Your task to perform on an android device: Open notification settings Image 0: 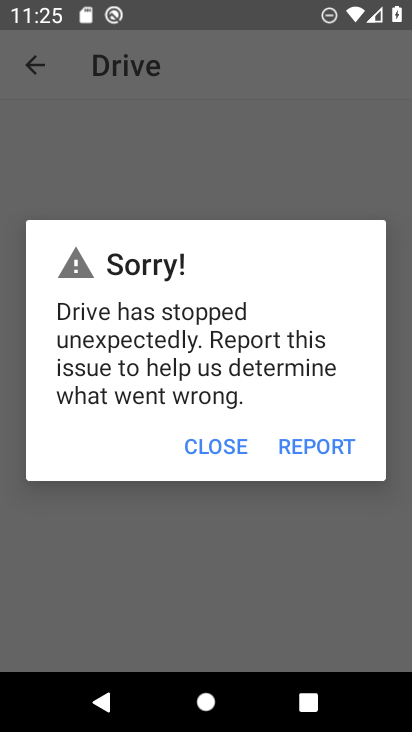
Step 0: press home button
Your task to perform on an android device: Open notification settings Image 1: 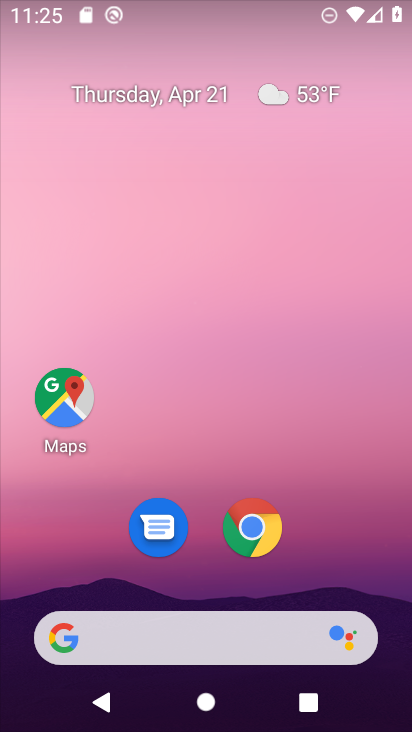
Step 1: drag from (358, 535) to (360, 216)
Your task to perform on an android device: Open notification settings Image 2: 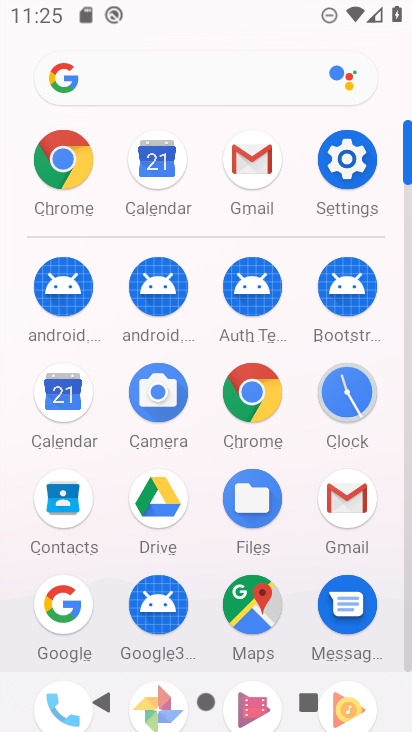
Step 2: click (340, 161)
Your task to perform on an android device: Open notification settings Image 3: 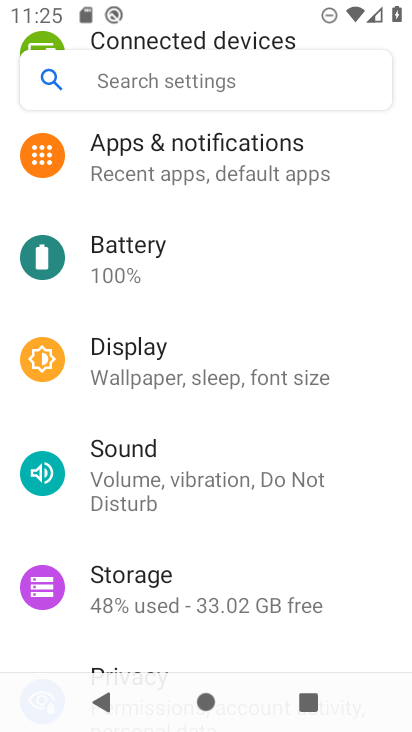
Step 3: drag from (357, 277) to (360, 411)
Your task to perform on an android device: Open notification settings Image 4: 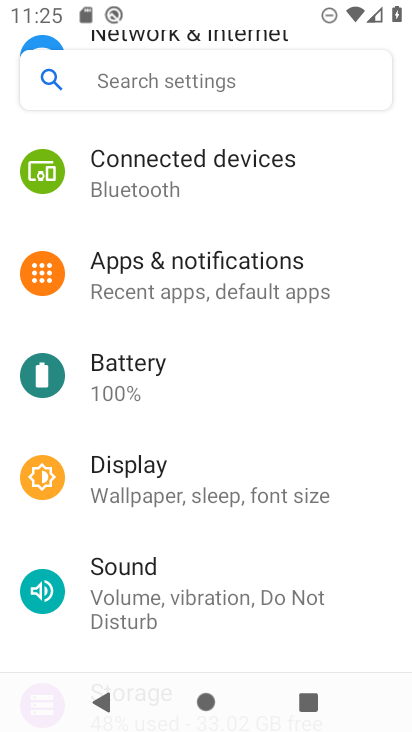
Step 4: drag from (363, 245) to (351, 406)
Your task to perform on an android device: Open notification settings Image 5: 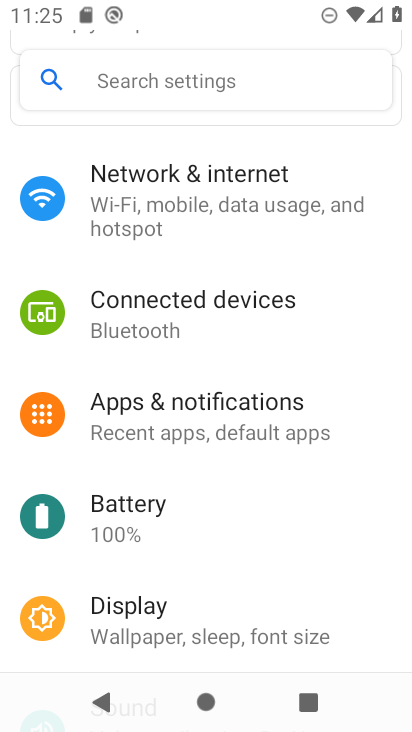
Step 5: drag from (363, 257) to (357, 419)
Your task to perform on an android device: Open notification settings Image 6: 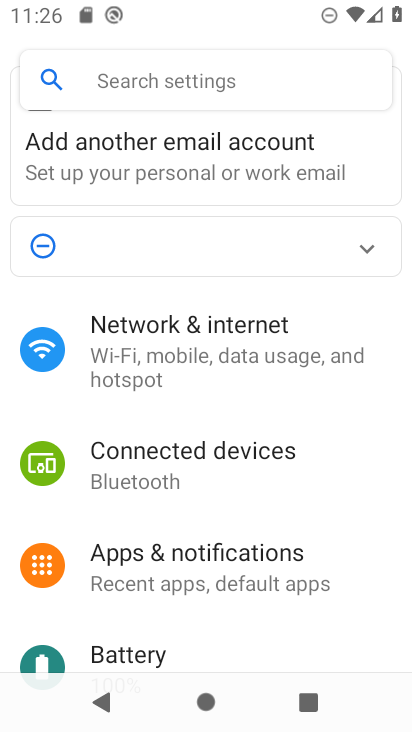
Step 6: drag from (363, 533) to (360, 359)
Your task to perform on an android device: Open notification settings Image 7: 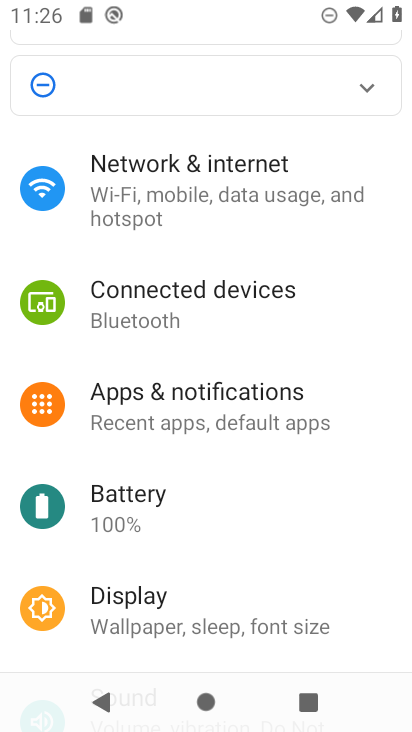
Step 7: drag from (351, 528) to (351, 391)
Your task to perform on an android device: Open notification settings Image 8: 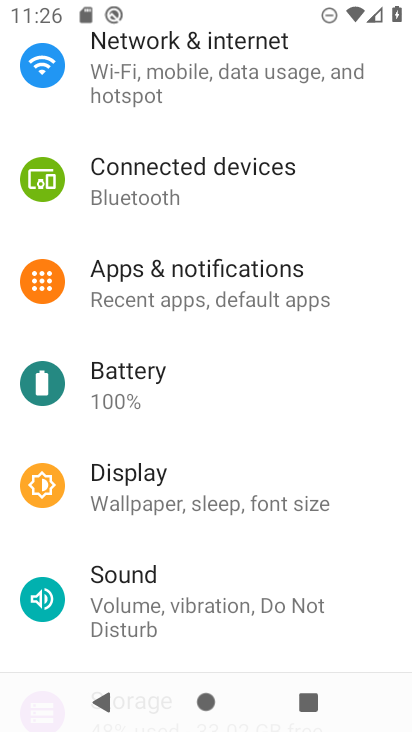
Step 8: drag from (356, 577) to (357, 400)
Your task to perform on an android device: Open notification settings Image 9: 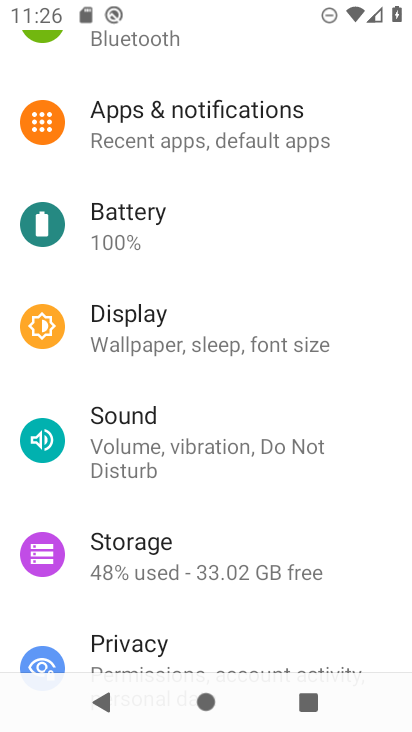
Step 9: drag from (349, 583) to (357, 437)
Your task to perform on an android device: Open notification settings Image 10: 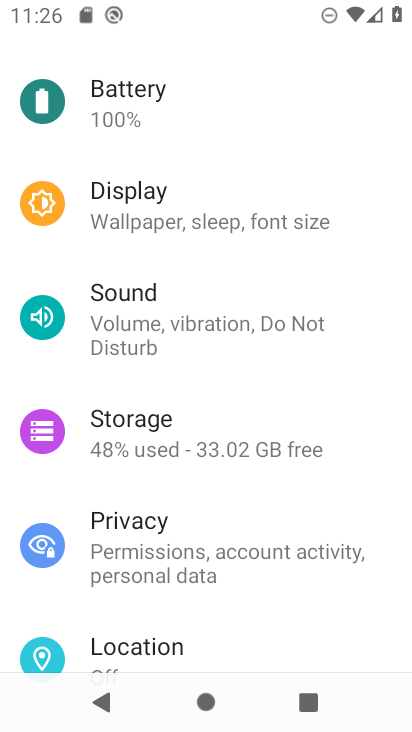
Step 10: drag from (350, 620) to (358, 460)
Your task to perform on an android device: Open notification settings Image 11: 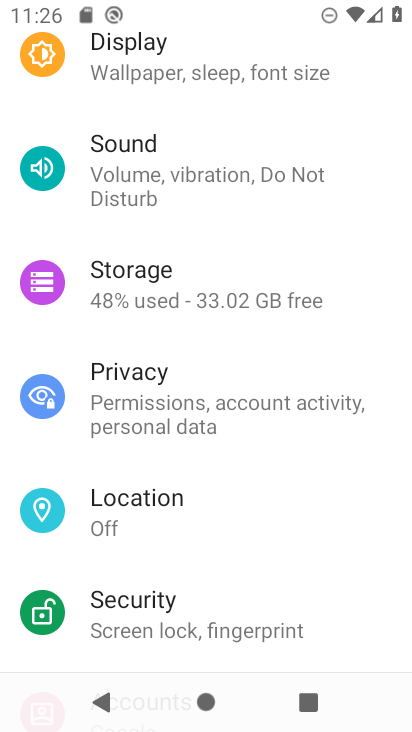
Step 11: drag from (355, 299) to (346, 456)
Your task to perform on an android device: Open notification settings Image 12: 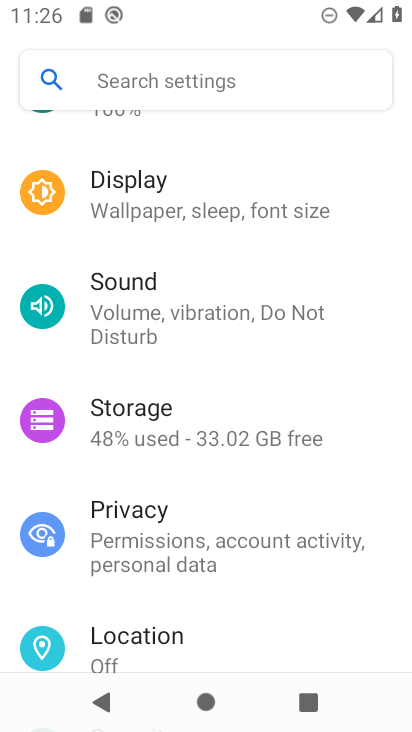
Step 12: drag from (361, 264) to (366, 432)
Your task to perform on an android device: Open notification settings Image 13: 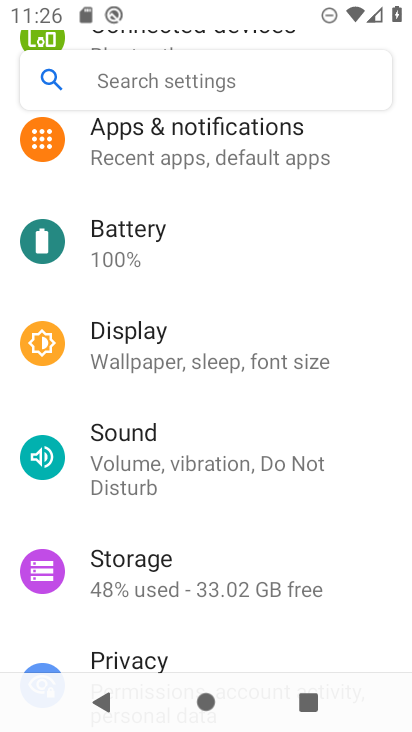
Step 13: drag from (378, 250) to (378, 385)
Your task to perform on an android device: Open notification settings Image 14: 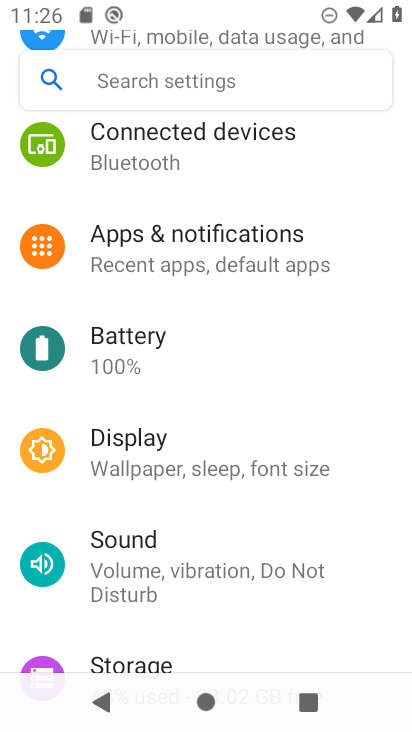
Step 14: click (288, 271)
Your task to perform on an android device: Open notification settings Image 15: 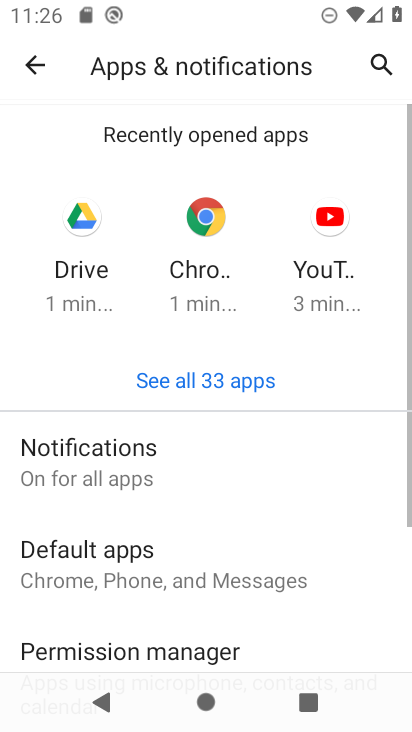
Step 15: click (143, 457)
Your task to perform on an android device: Open notification settings Image 16: 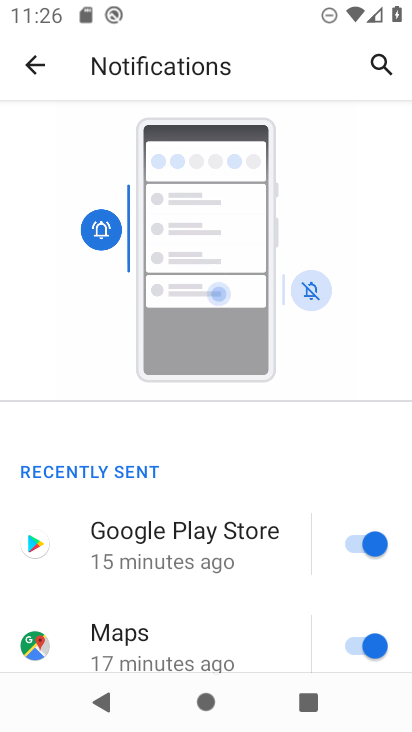
Step 16: task complete